Your task to perform on an android device: turn on improve location accuracy Image 0: 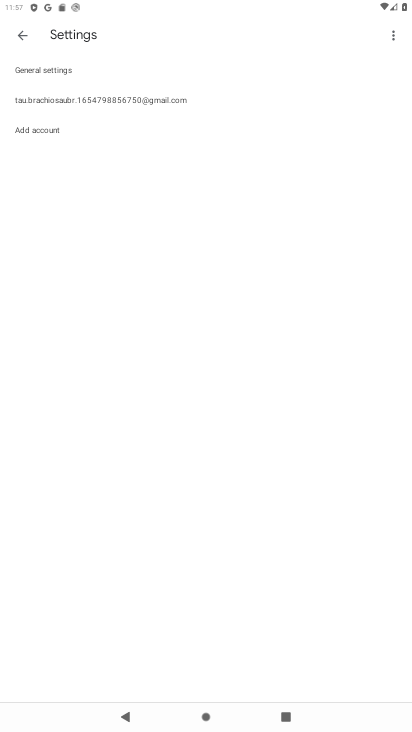
Step 0: press home button
Your task to perform on an android device: turn on improve location accuracy Image 1: 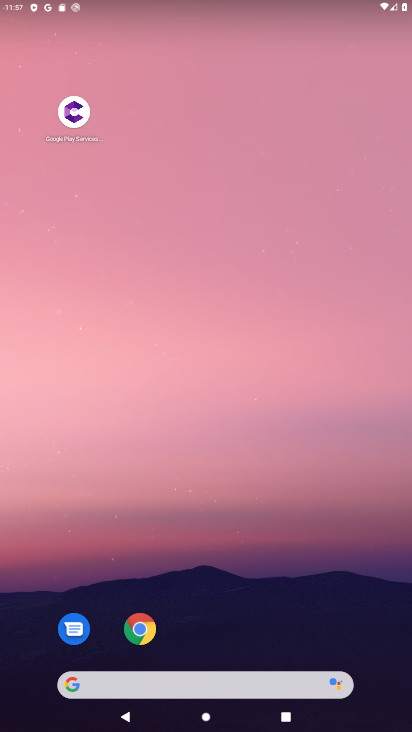
Step 1: drag from (227, 624) to (230, 46)
Your task to perform on an android device: turn on improve location accuracy Image 2: 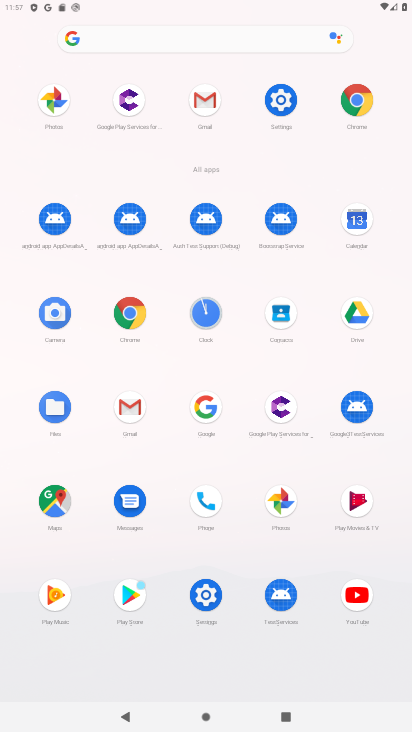
Step 2: click (276, 145)
Your task to perform on an android device: turn on improve location accuracy Image 3: 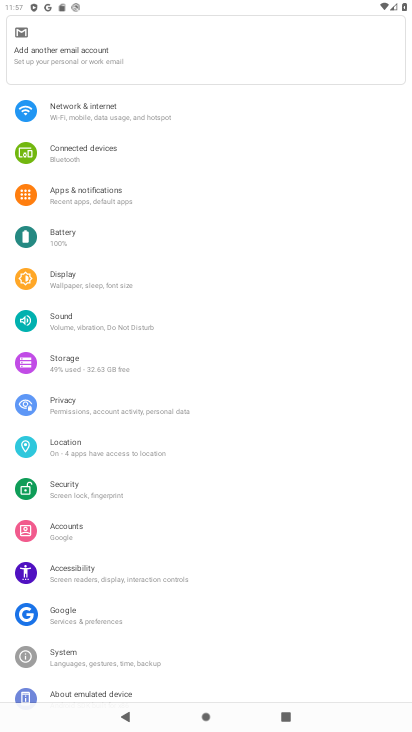
Step 3: click (64, 452)
Your task to perform on an android device: turn on improve location accuracy Image 4: 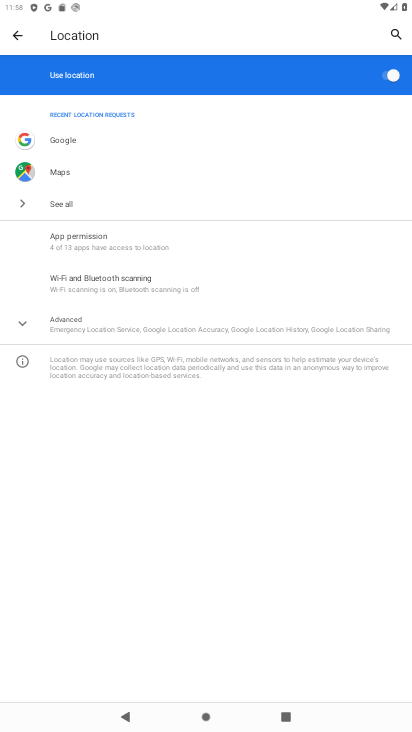
Step 4: click (190, 327)
Your task to perform on an android device: turn on improve location accuracy Image 5: 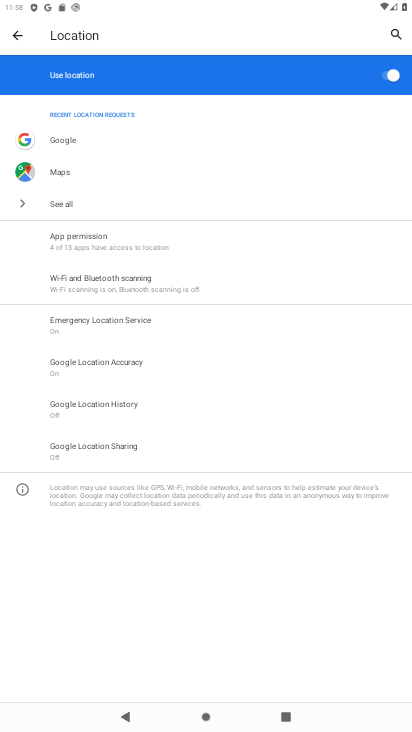
Step 5: click (132, 367)
Your task to perform on an android device: turn on improve location accuracy Image 6: 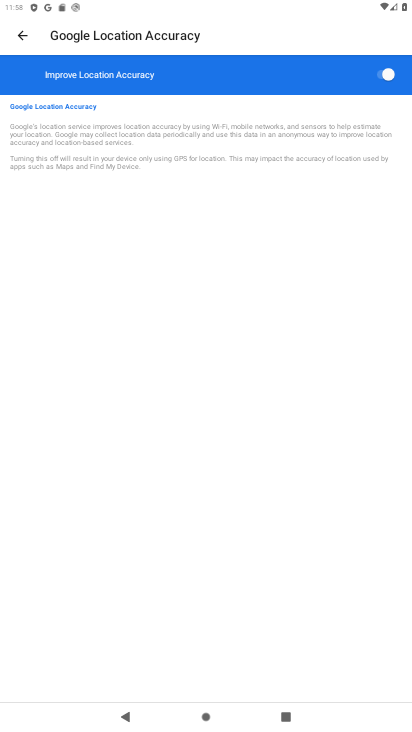
Step 6: task complete